Your task to perform on an android device: Search for seafood restaurants on Google Maps Image 0: 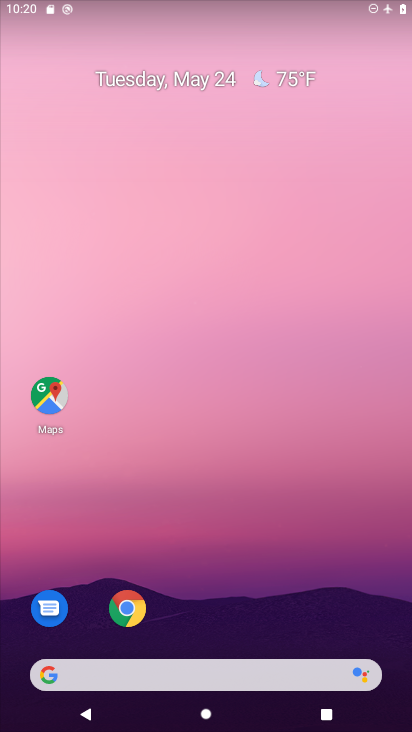
Step 0: click (59, 400)
Your task to perform on an android device: Search for seafood restaurants on Google Maps Image 1: 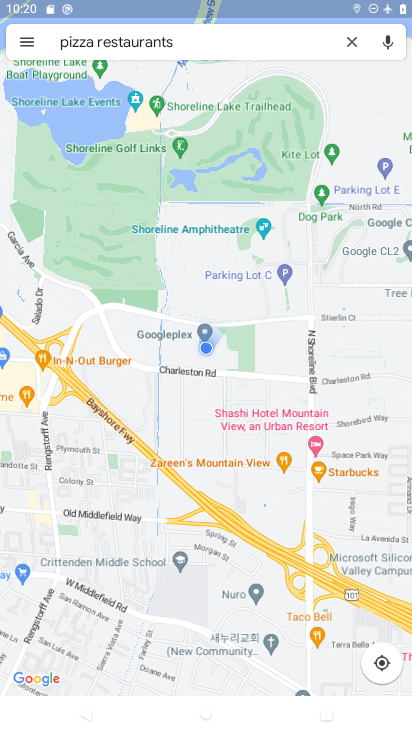
Step 1: click (185, 35)
Your task to perform on an android device: Search for seafood restaurants on Google Maps Image 2: 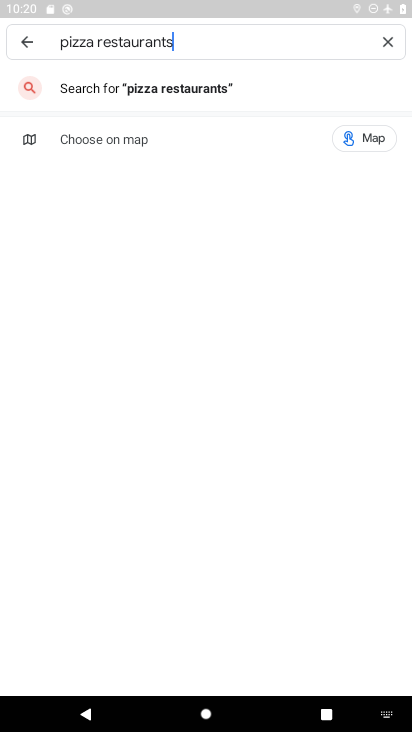
Step 2: click (345, 42)
Your task to perform on an android device: Search for seafood restaurants on Google Maps Image 3: 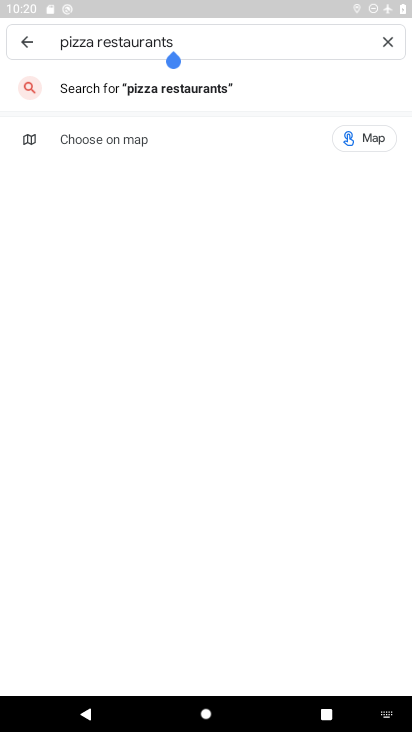
Step 3: click (391, 34)
Your task to perform on an android device: Search for seafood restaurants on Google Maps Image 4: 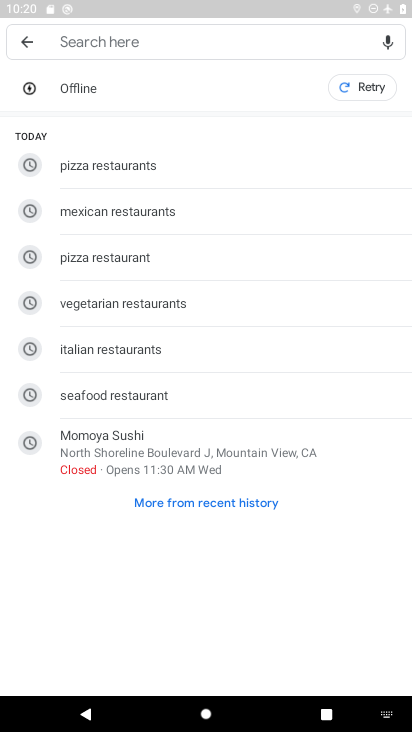
Step 4: click (126, 390)
Your task to perform on an android device: Search for seafood restaurants on Google Maps Image 5: 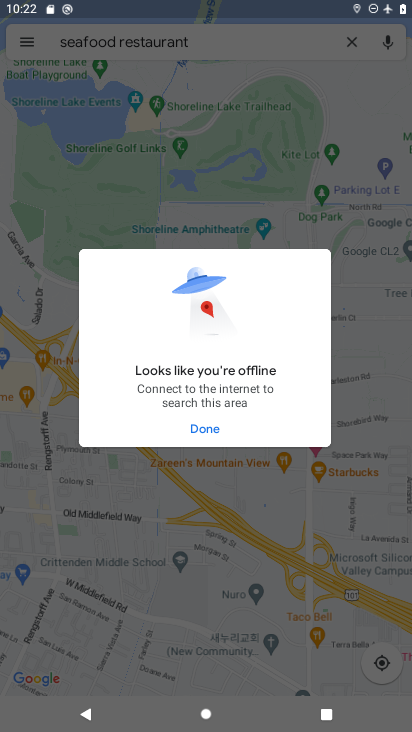
Step 5: task complete